Your task to perform on an android device: What's the weather today? Image 0: 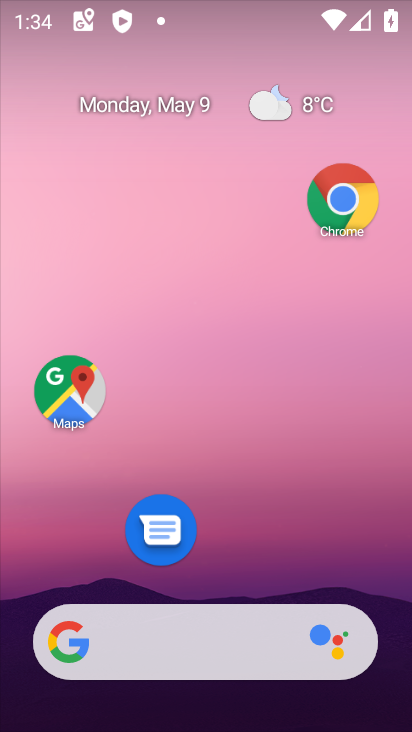
Step 0: drag from (264, 557) to (252, 32)
Your task to perform on an android device: What's the weather today? Image 1: 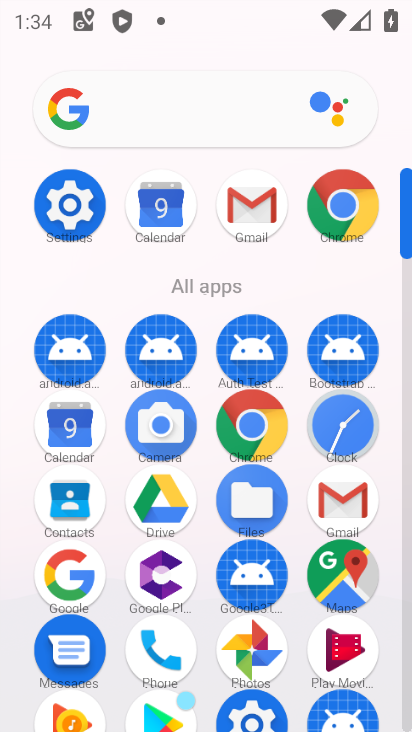
Step 1: click (76, 575)
Your task to perform on an android device: What's the weather today? Image 2: 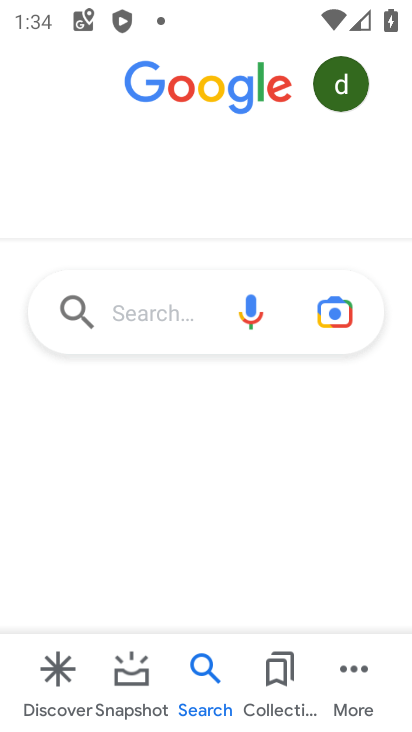
Step 2: click (181, 322)
Your task to perform on an android device: What's the weather today? Image 3: 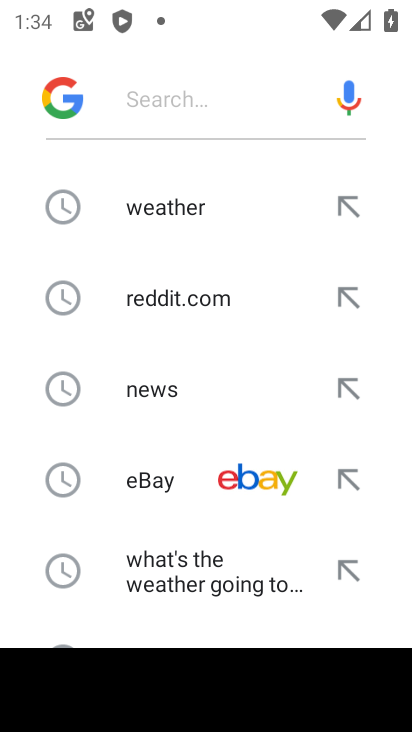
Step 3: click (184, 215)
Your task to perform on an android device: What's the weather today? Image 4: 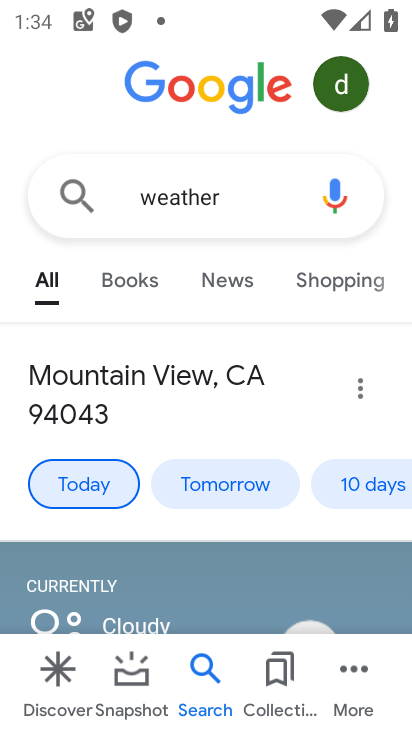
Step 4: task complete